Your task to perform on an android device: Set the phone to "Do not disturb". Image 0: 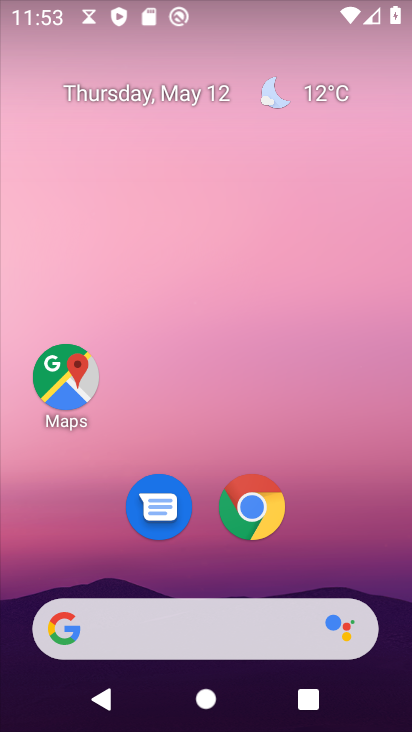
Step 0: drag from (303, 561) to (331, 169)
Your task to perform on an android device: Set the phone to "Do not disturb". Image 1: 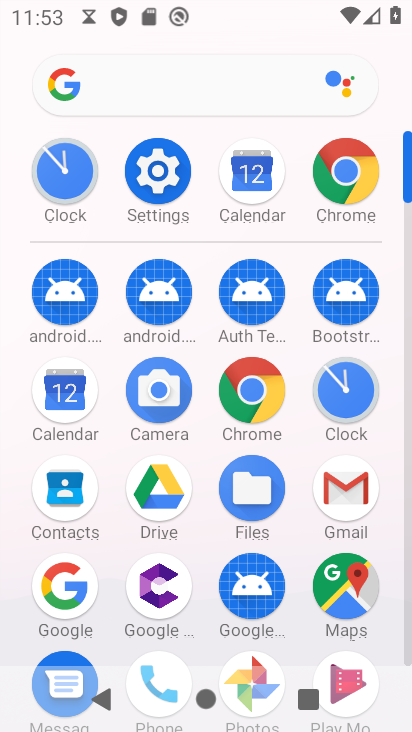
Step 1: click (159, 188)
Your task to perform on an android device: Set the phone to "Do not disturb". Image 2: 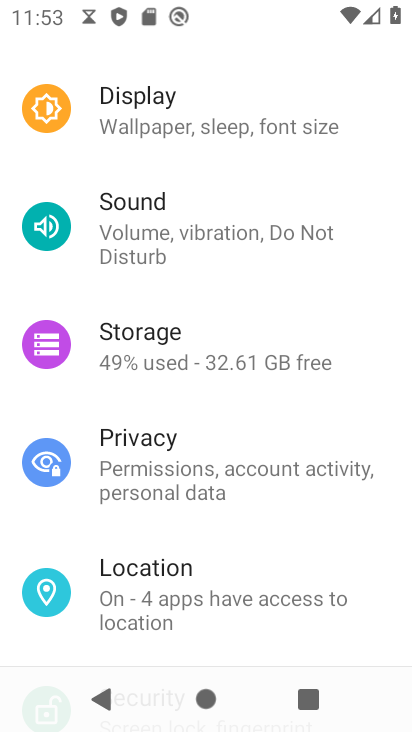
Step 2: drag from (279, 284) to (271, 469)
Your task to perform on an android device: Set the phone to "Do not disturb". Image 3: 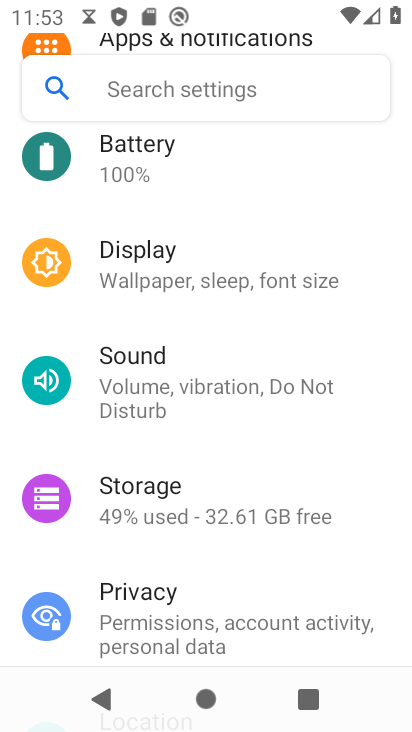
Step 3: click (243, 390)
Your task to perform on an android device: Set the phone to "Do not disturb". Image 4: 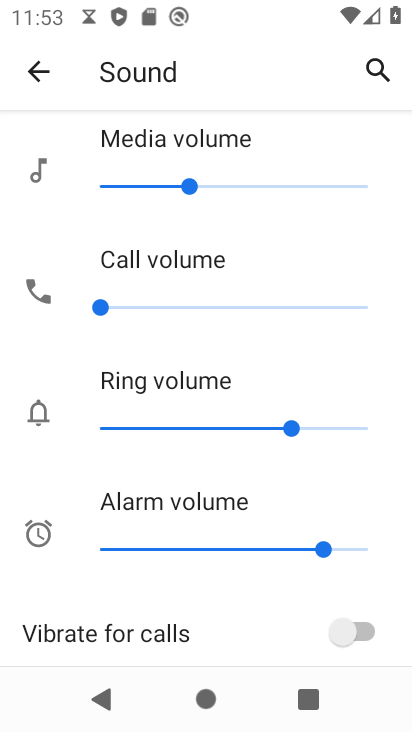
Step 4: drag from (234, 593) to (288, 226)
Your task to perform on an android device: Set the phone to "Do not disturb". Image 5: 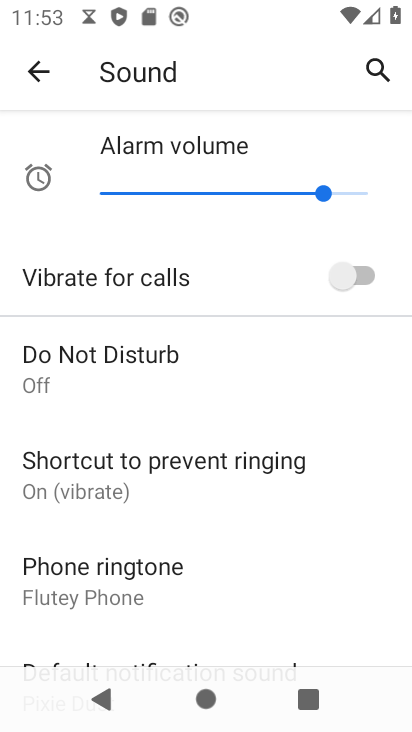
Step 5: click (224, 372)
Your task to perform on an android device: Set the phone to "Do not disturb". Image 6: 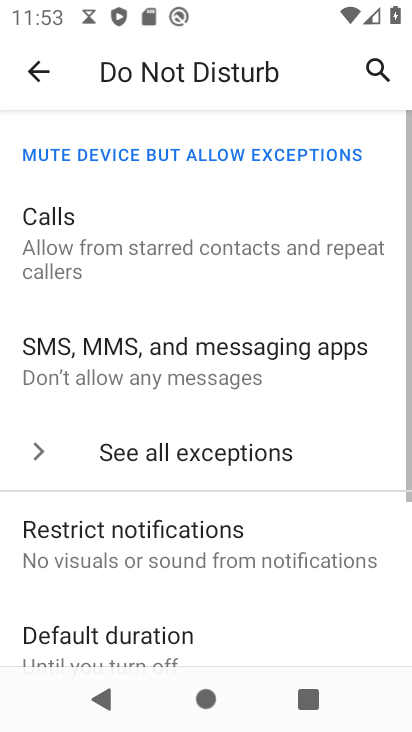
Step 6: drag from (188, 573) to (263, 168)
Your task to perform on an android device: Set the phone to "Do not disturb". Image 7: 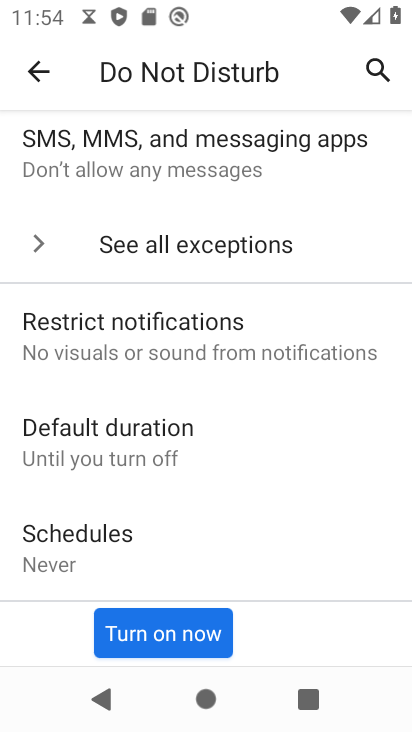
Step 7: click (158, 631)
Your task to perform on an android device: Set the phone to "Do not disturb". Image 8: 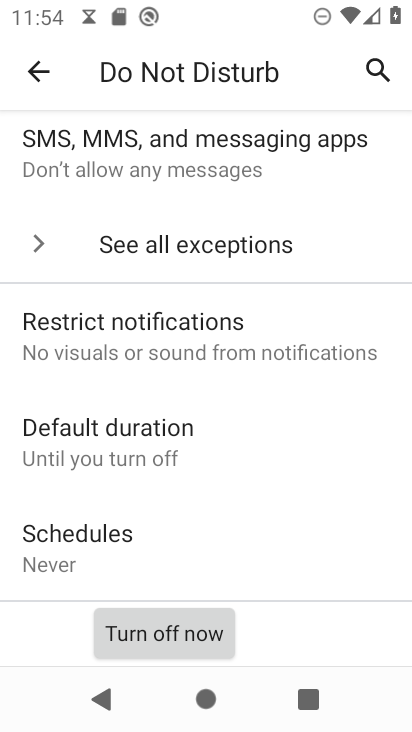
Step 8: task complete